Your task to perform on an android device: turn on sleep mode Image 0: 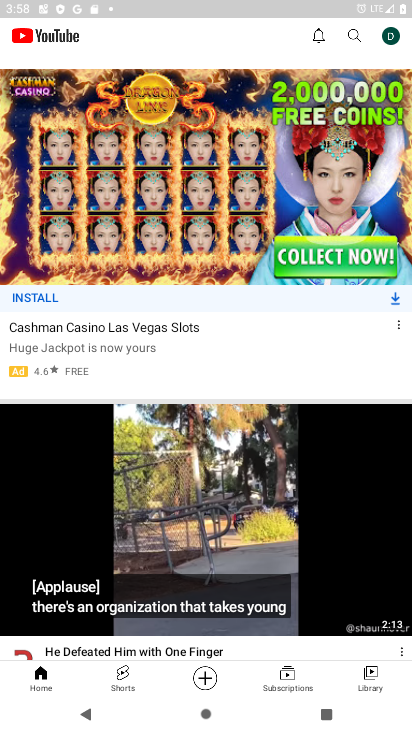
Step 0: press home button
Your task to perform on an android device: turn on sleep mode Image 1: 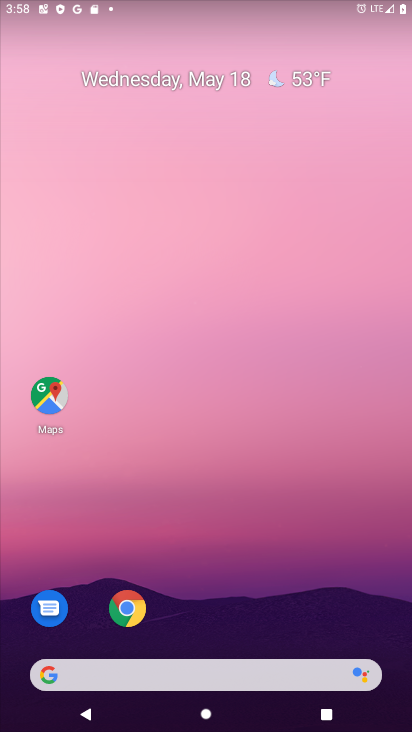
Step 1: drag from (248, 594) to (207, 10)
Your task to perform on an android device: turn on sleep mode Image 2: 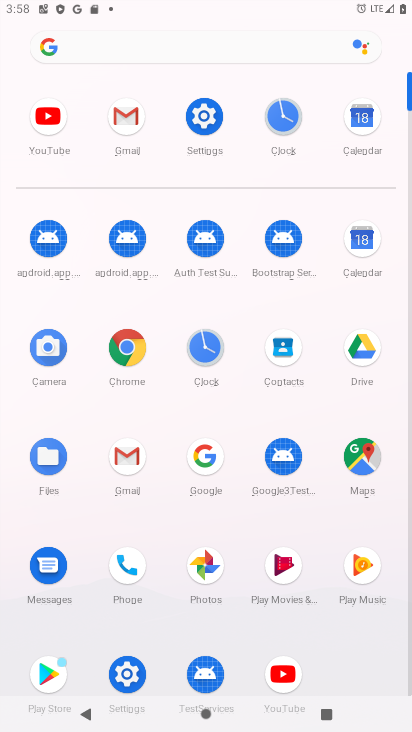
Step 2: click (201, 115)
Your task to perform on an android device: turn on sleep mode Image 3: 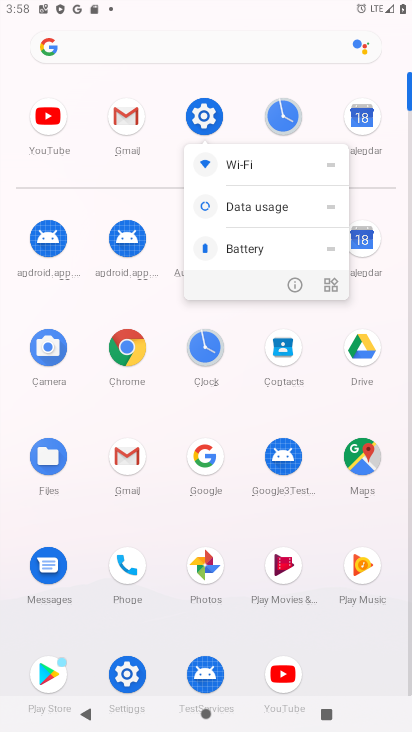
Step 3: click (201, 115)
Your task to perform on an android device: turn on sleep mode Image 4: 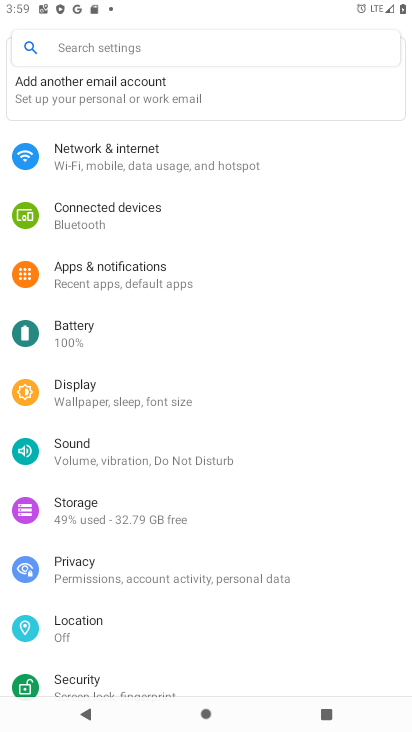
Step 4: click (72, 396)
Your task to perform on an android device: turn on sleep mode Image 5: 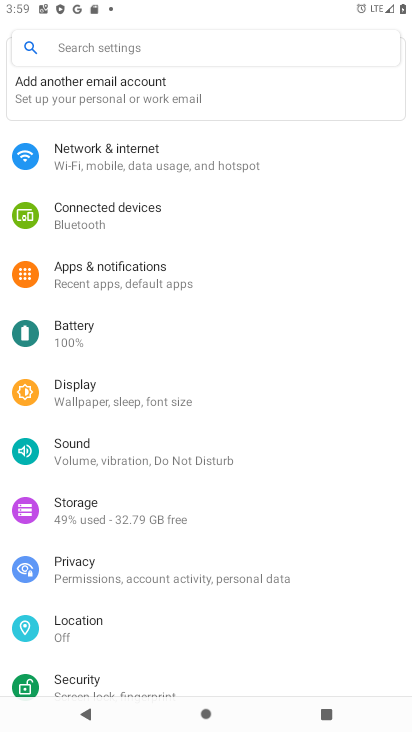
Step 5: click (84, 405)
Your task to perform on an android device: turn on sleep mode Image 6: 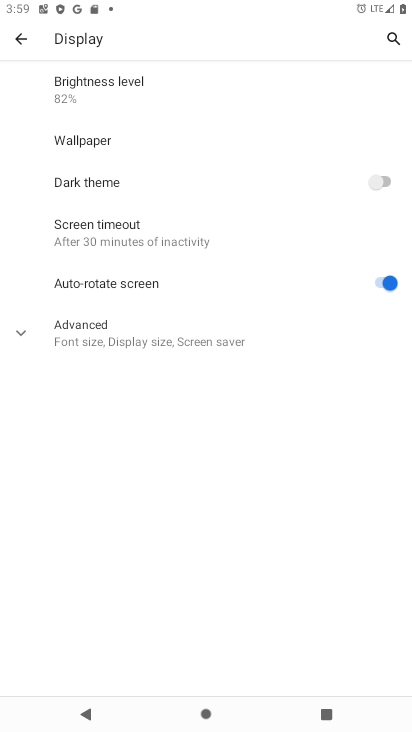
Step 6: click (9, 338)
Your task to perform on an android device: turn on sleep mode Image 7: 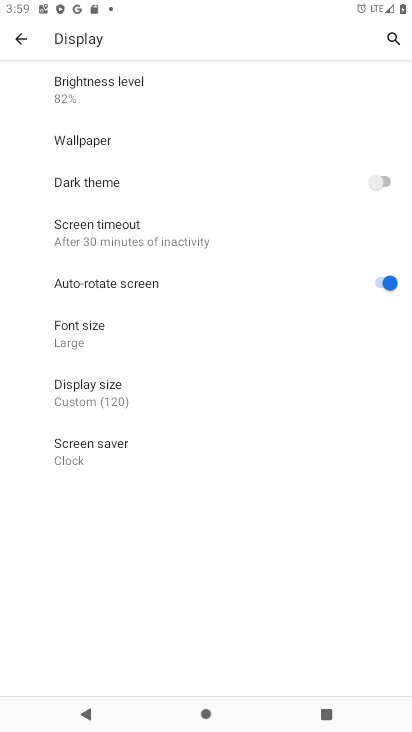
Step 7: task complete